Your task to perform on an android device: check android version Image 0: 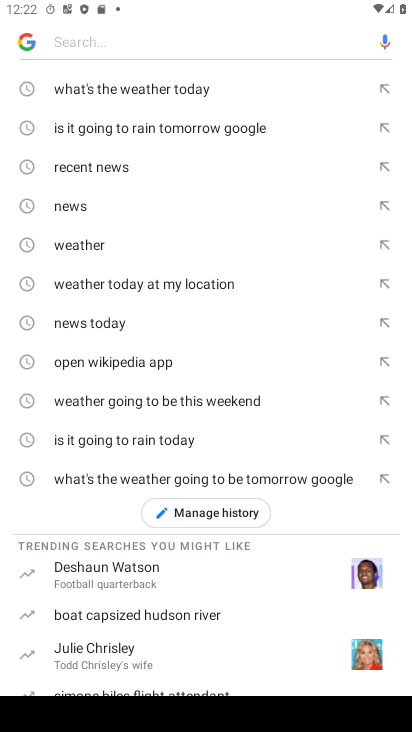
Step 0: press home button
Your task to perform on an android device: check android version Image 1: 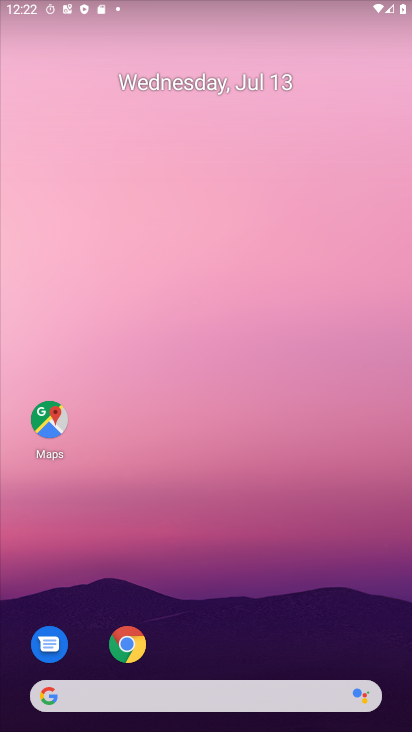
Step 1: drag from (218, 639) to (296, 62)
Your task to perform on an android device: check android version Image 2: 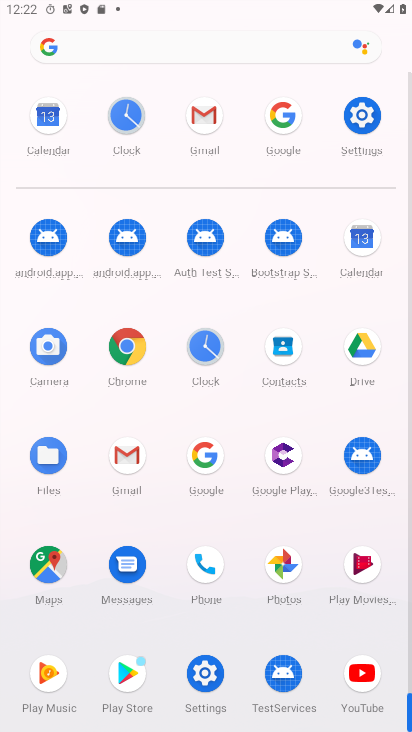
Step 2: click (360, 118)
Your task to perform on an android device: check android version Image 3: 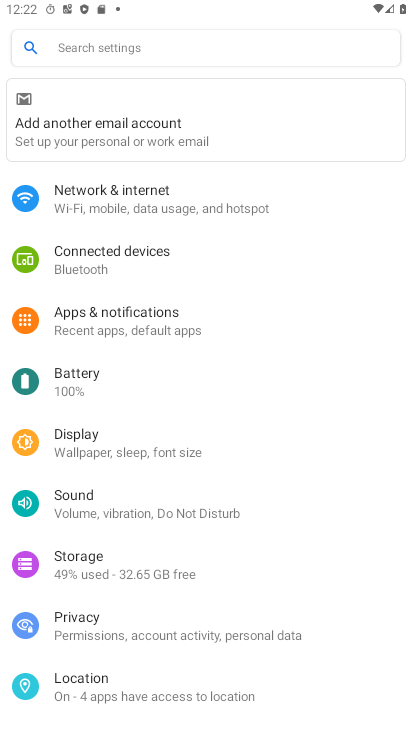
Step 3: drag from (250, 604) to (277, 0)
Your task to perform on an android device: check android version Image 4: 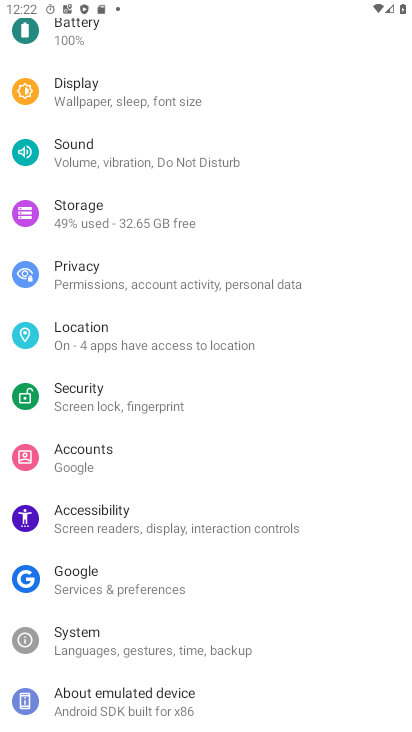
Step 4: click (159, 702)
Your task to perform on an android device: check android version Image 5: 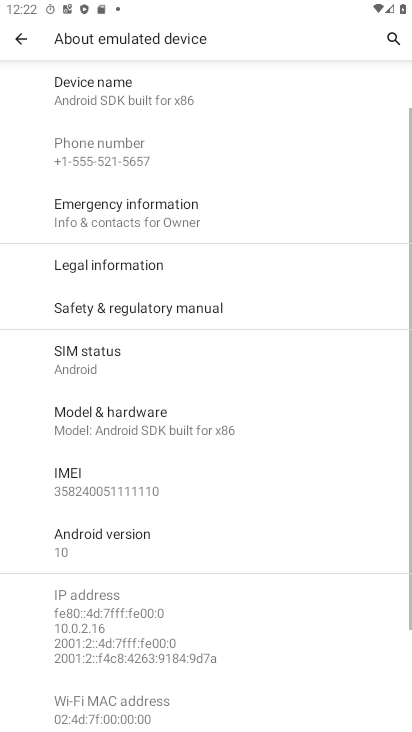
Step 5: click (106, 534)
Your task to perform on an android device: check android version Image 6: 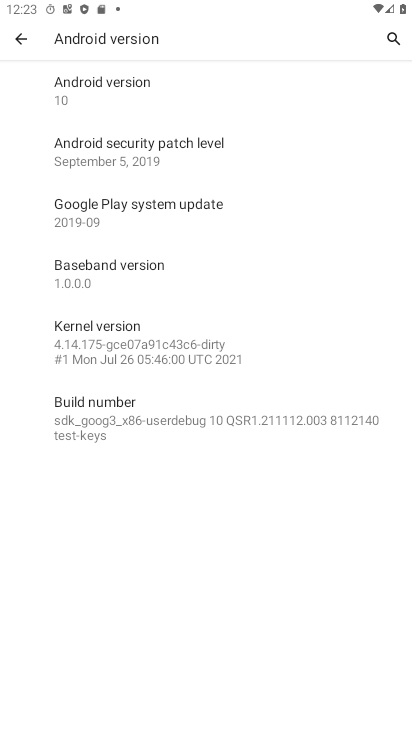
Step 6: task complete